Your task to perform on an android device: Go to Wikipedia Image 0: 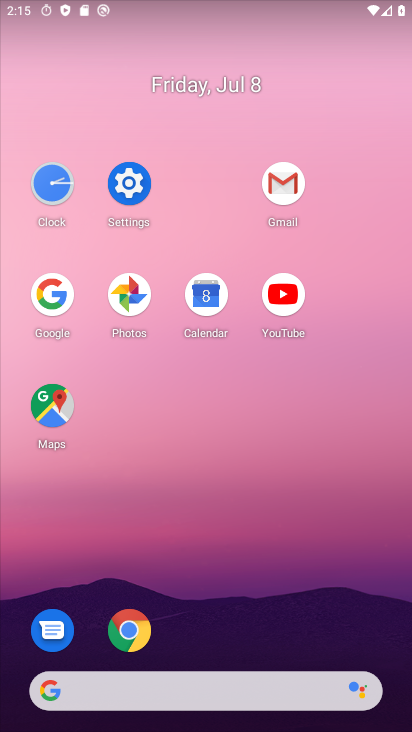
Step 0: click (124, 630)
Your task to perform on an android device: Go to Wikipedia Image 1: 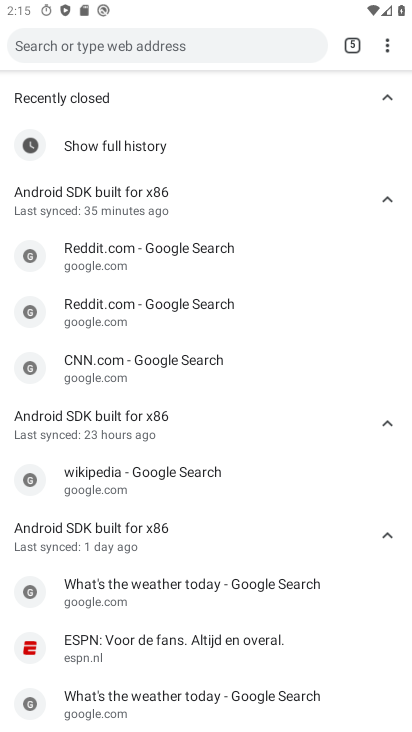
Step 1: click (361, 51)
Your task to perform on an android device: Go to Wikipedia Image 2: 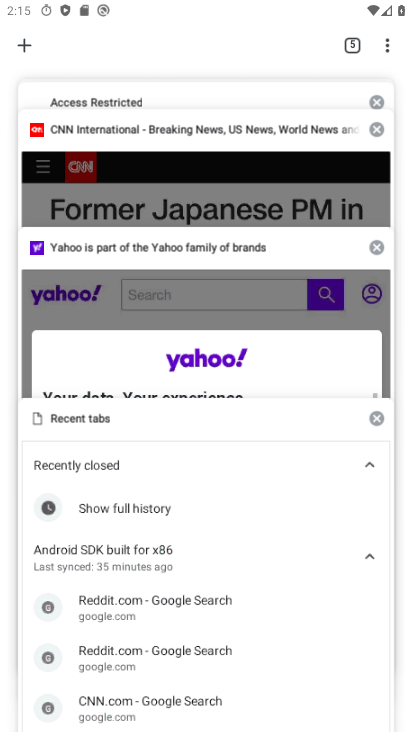
Step 2: click (25, 33)
Your task to perform on an android device: Go to Wikipedia Image 3: 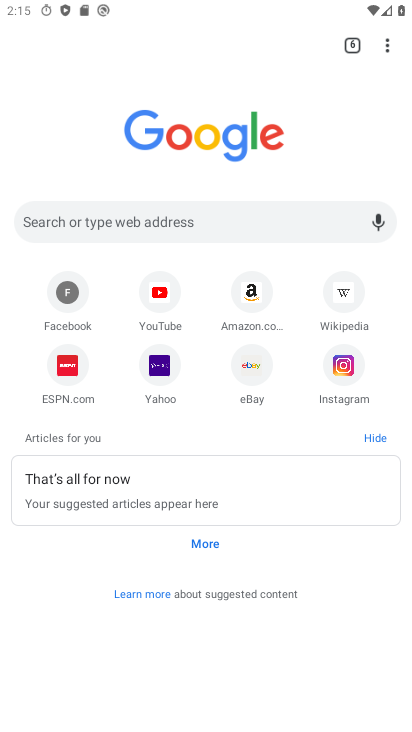
Step 3: click (345, 292)
Your task to perform on an android device: Go to Wikipedia Image 4: 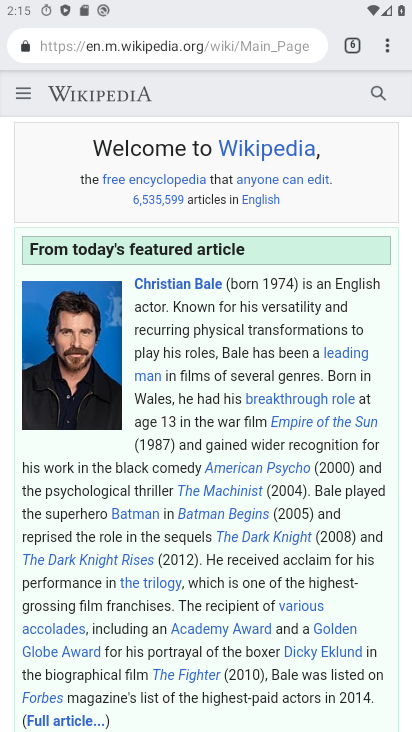
Step 4: task complete